Your task to perform on an android device: Clear all items from cart on bestbuy. Image 0: 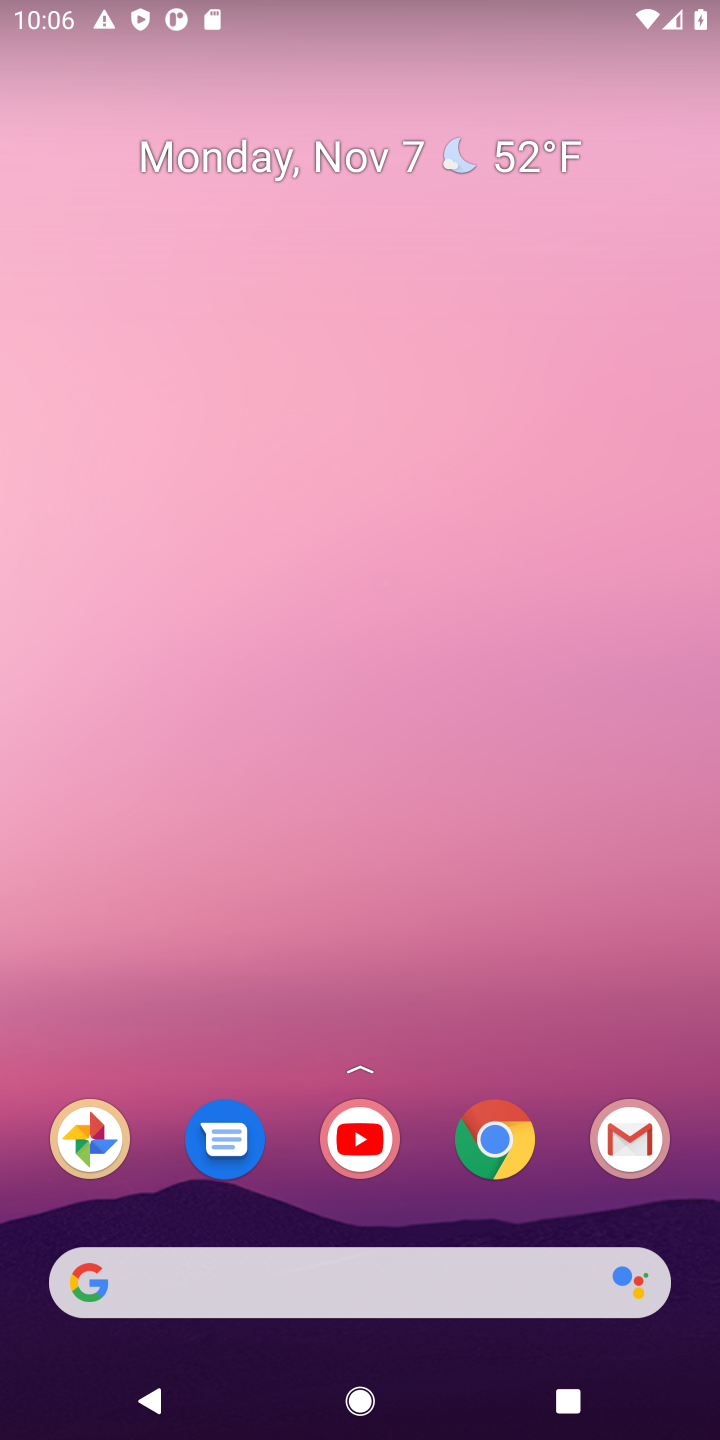
Step 0: press home button
Your task to perform on an android device: Clear all items from cart on bestbuy. Image 1: 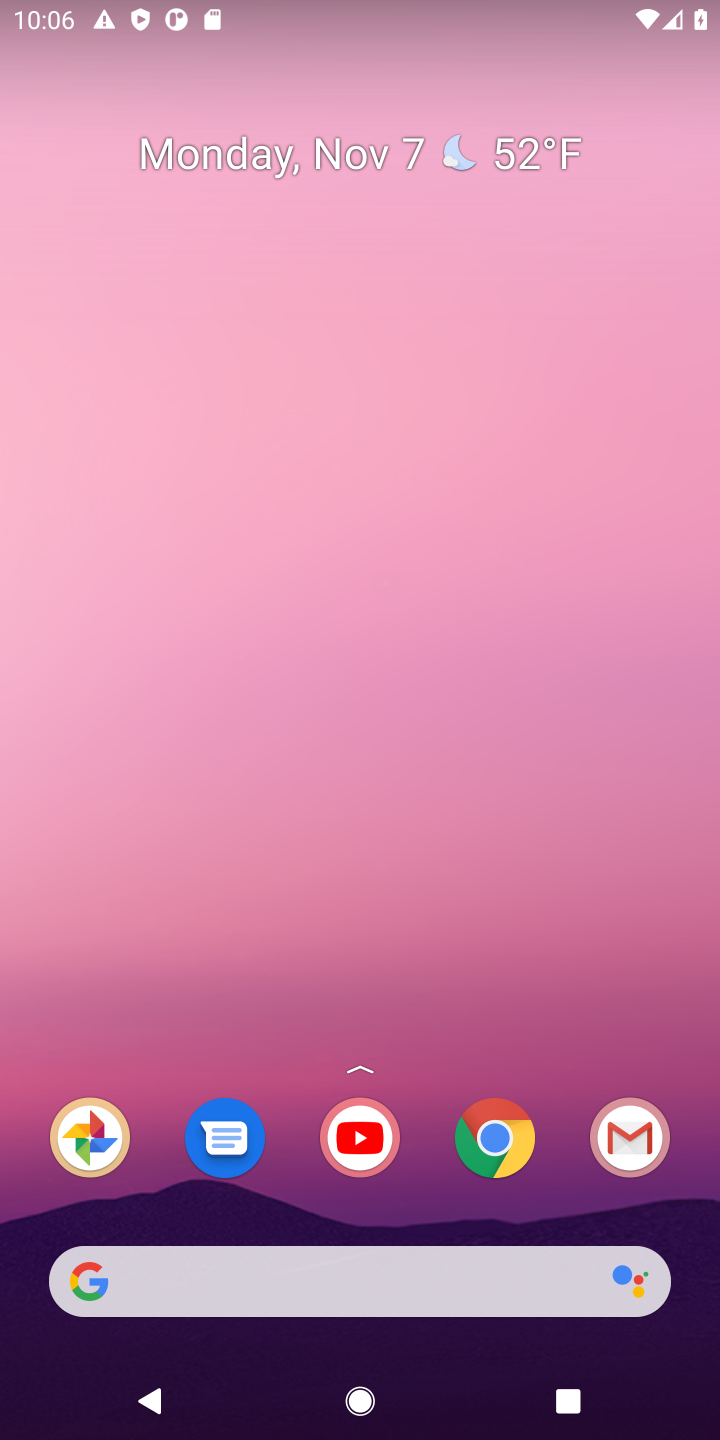
Step 1: drag from (426, 983) to (435, 336)
Your task to perform on an android device: Clear all items from cart on bestbuy. Image 2: 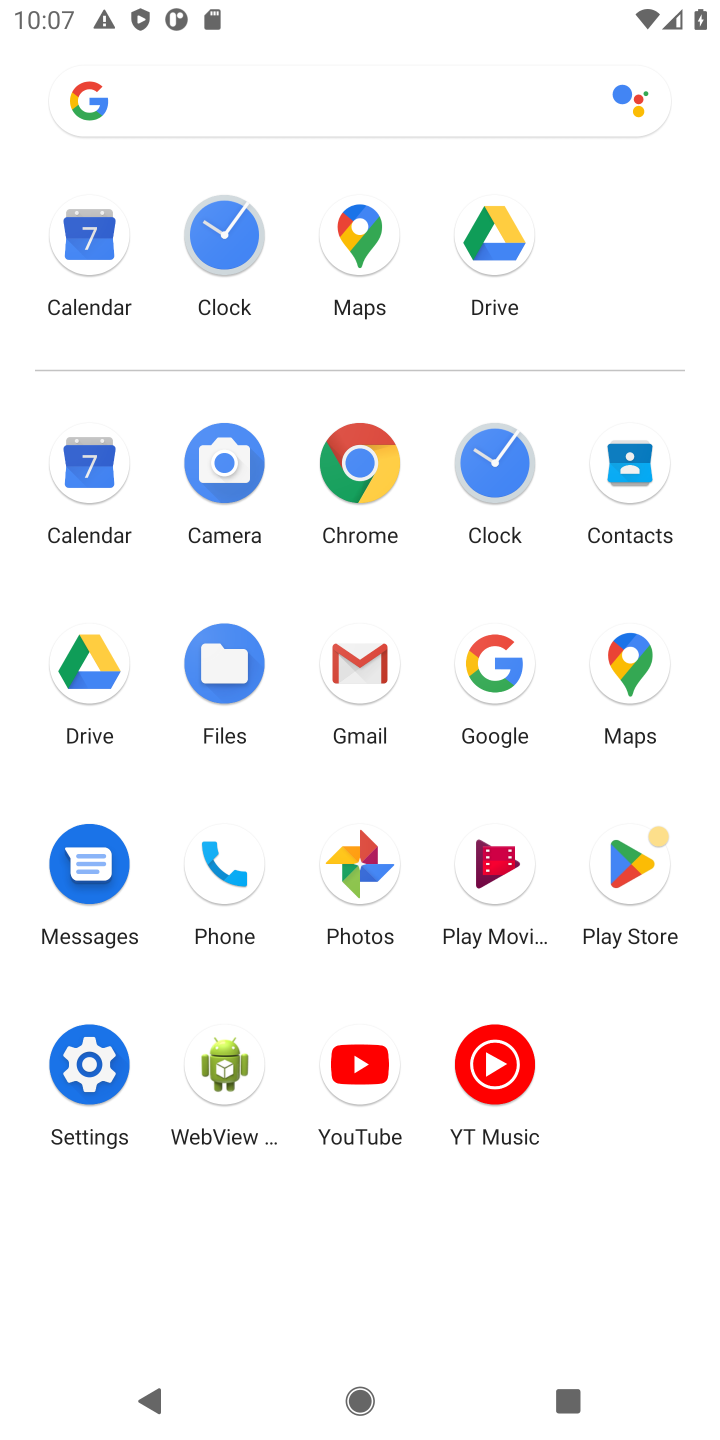
Step 2: click (359, 455)
Your task to perform on an android device: Clear all items from cart on bestbuy. Image 3: 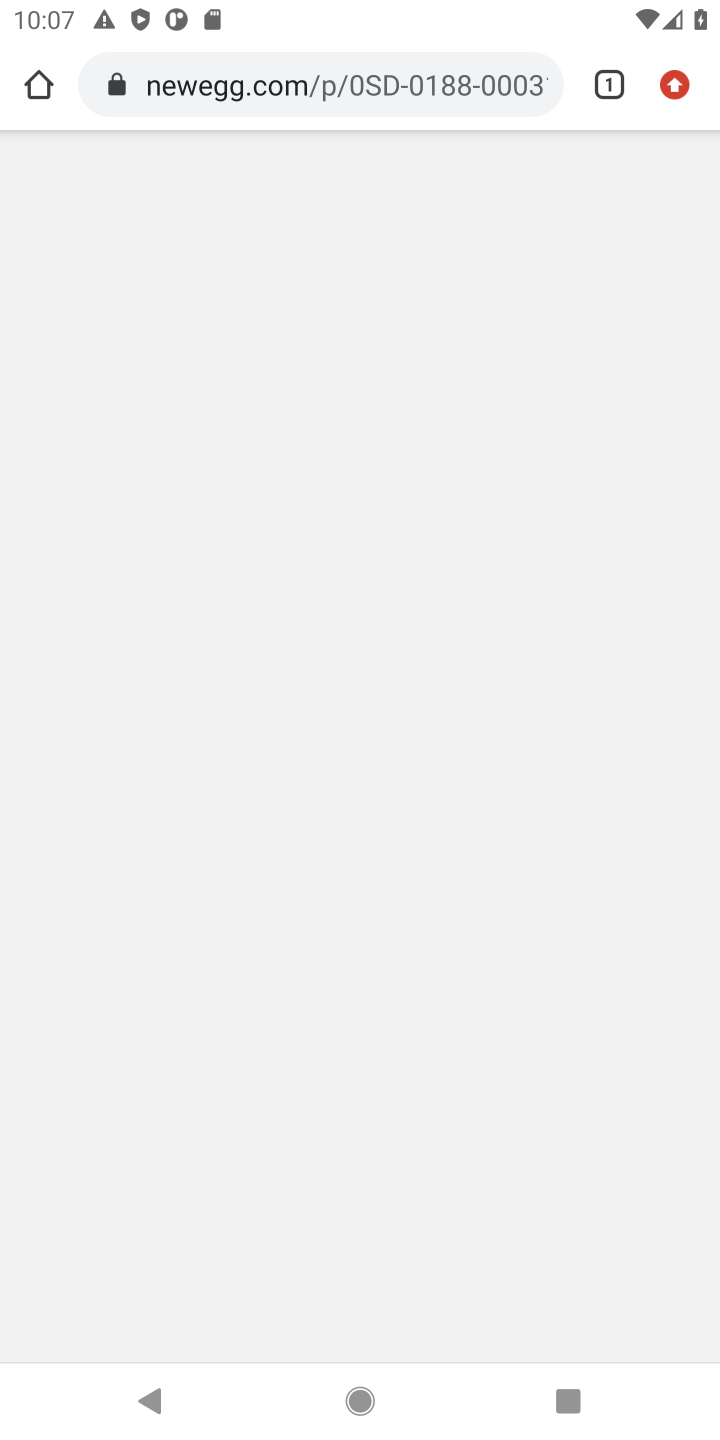
Step 3: click (312, 77)
Your task to perform on an android device: Clear all items from cart on bestbuy. Image 4: 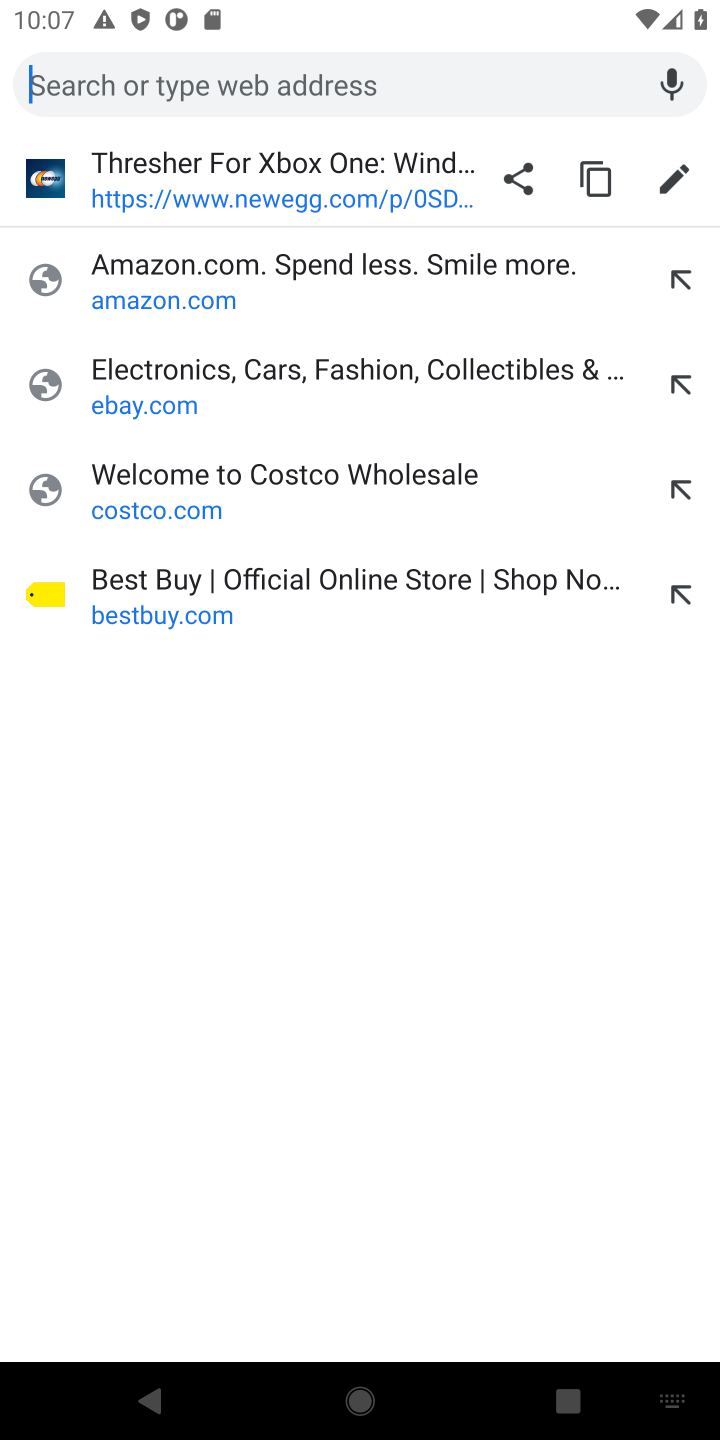
Step 4: type "bestbuy.com"
Your task to perform on an android device: Clear all items from cart on bestbuy. Image 5: 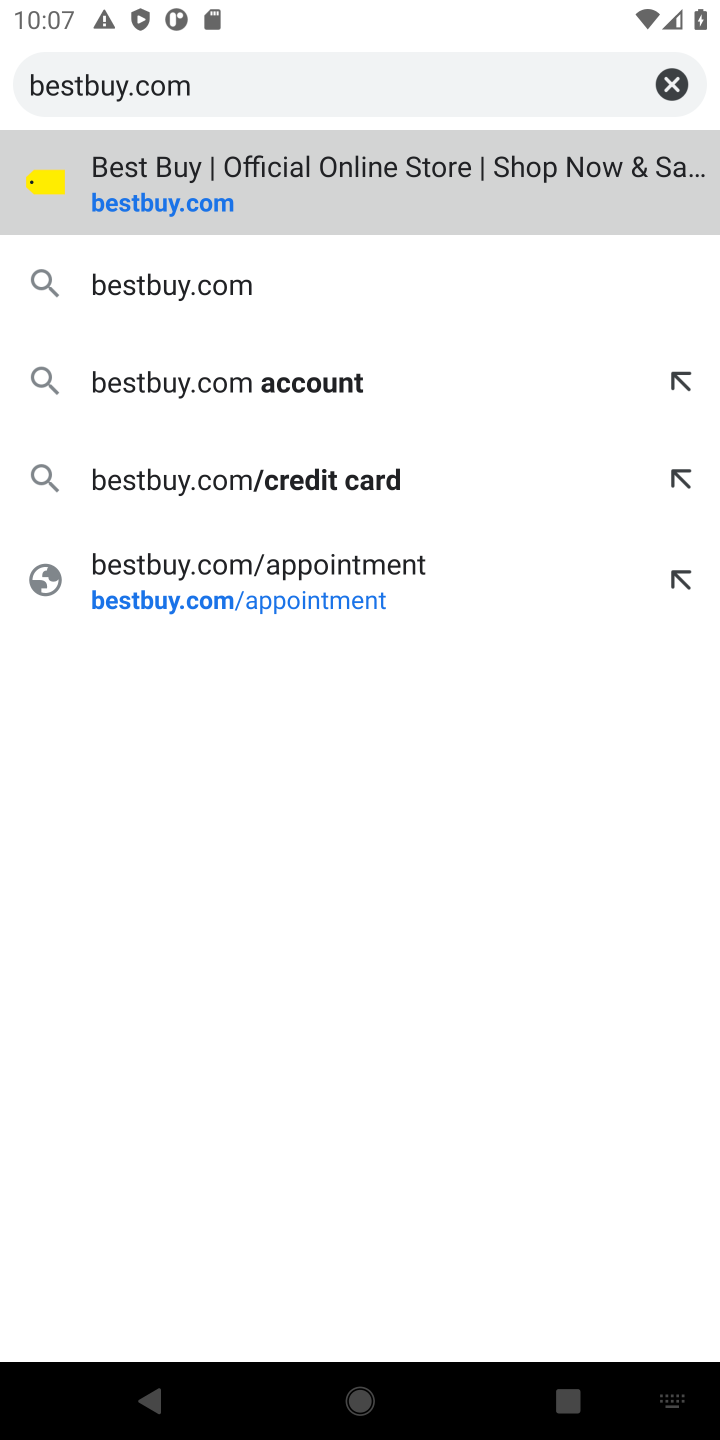
Step 5: press enter
Your task to perform on an android device: Clear all items from cart on bestbuy. Image 6: 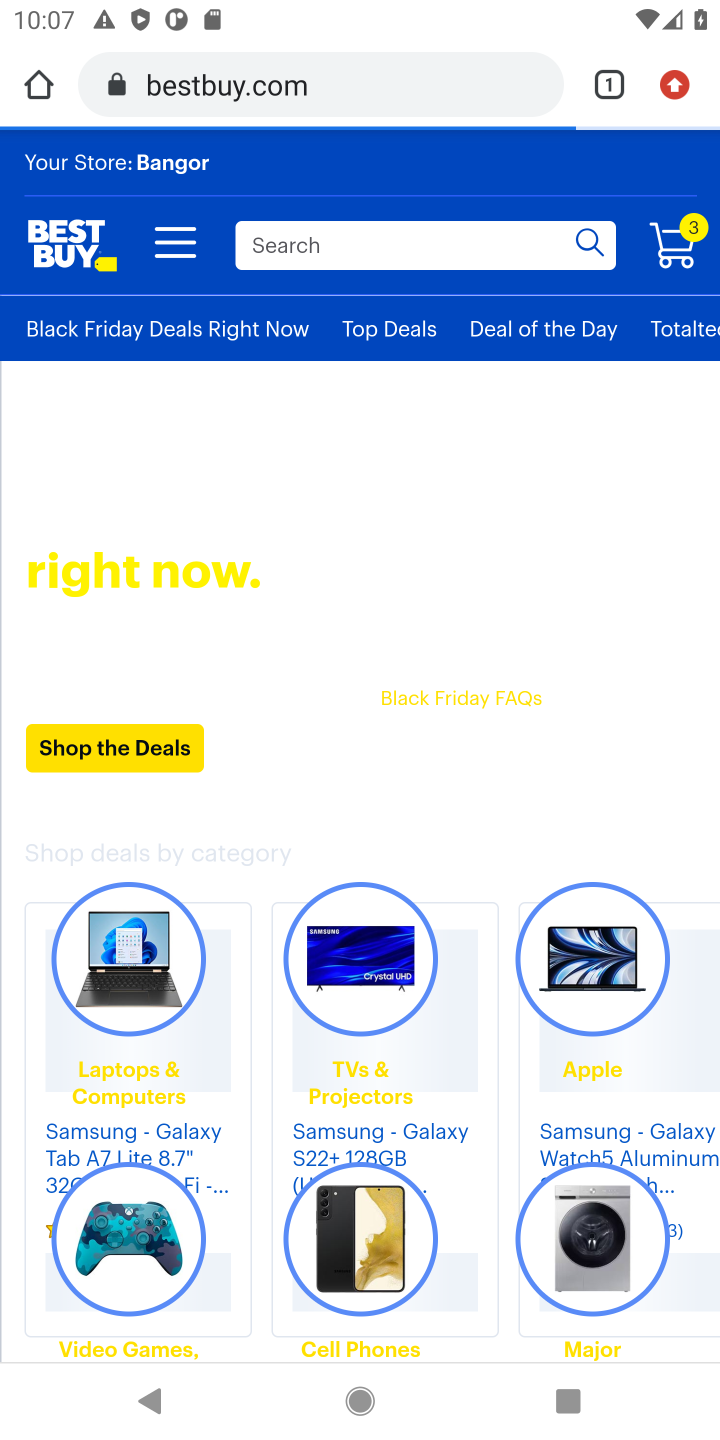
Step 6: click (676, 251)
Your task to perform on an android device: Clear all items from cart on bestbuy. Image 7: 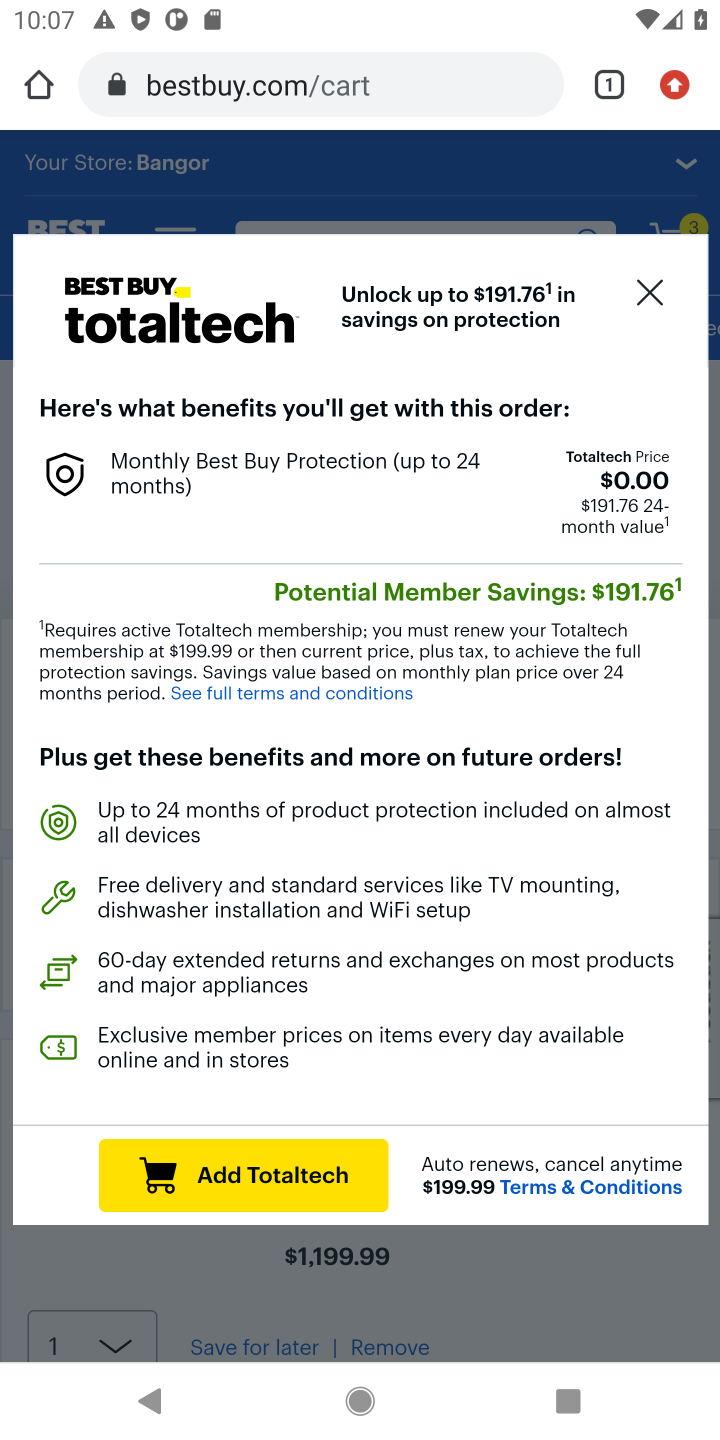
Step 7: click (637, 294)
Your task to perform on an android device: Clear all items from cart on bestbuy. Image 8: 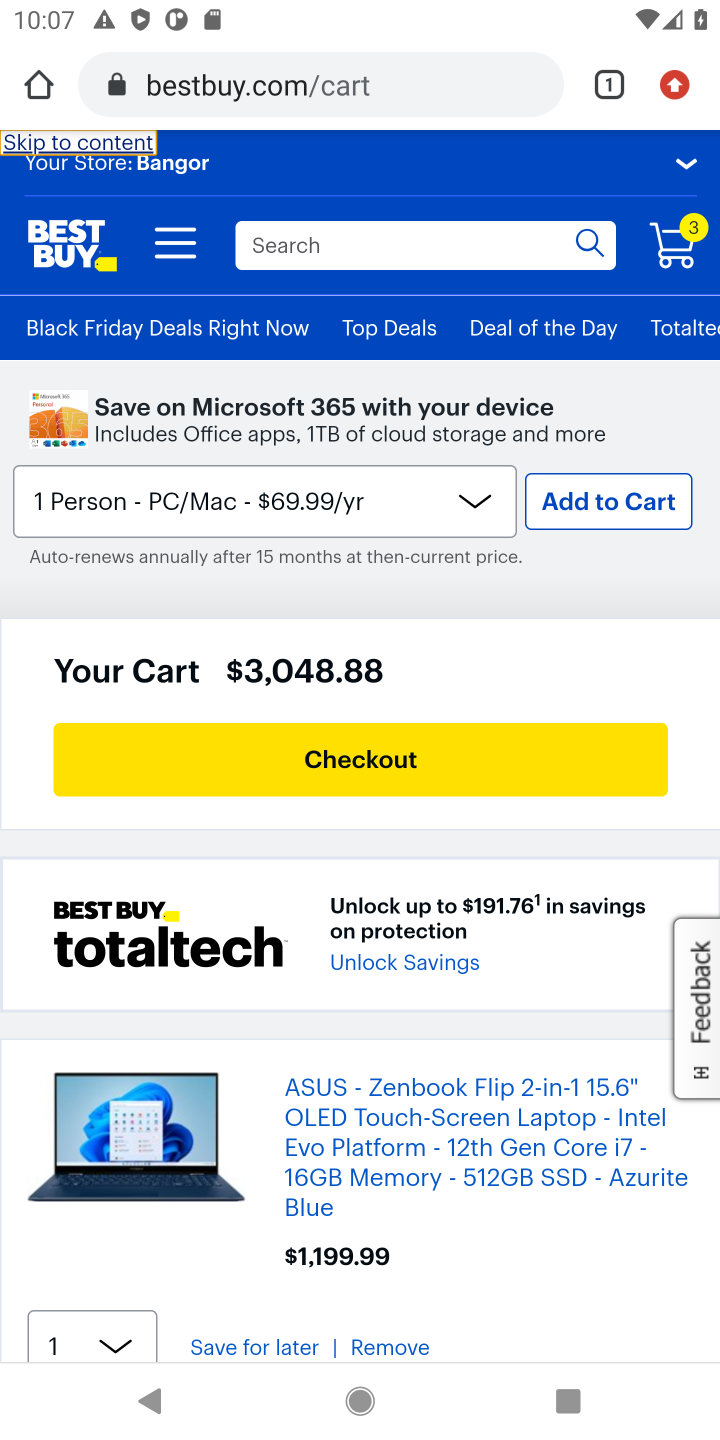
Step 8: drag from (344, 1191) to (439, 408)
Your task to perform on an android device: Clear all items from cart on bestbuy. Image 9: 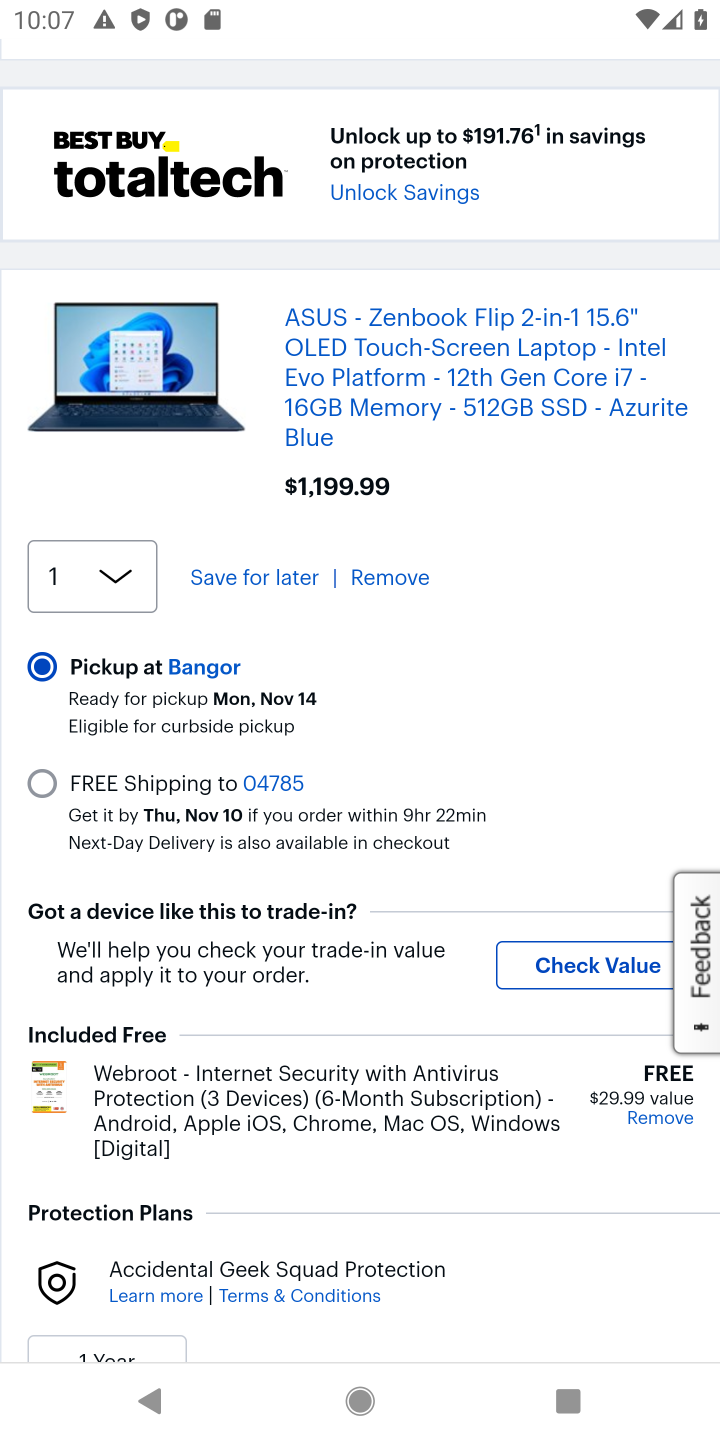
Step 9: click (403, 579)
Your task to perform on an android device: Clear all items from cart on bestbuy. Image 10: 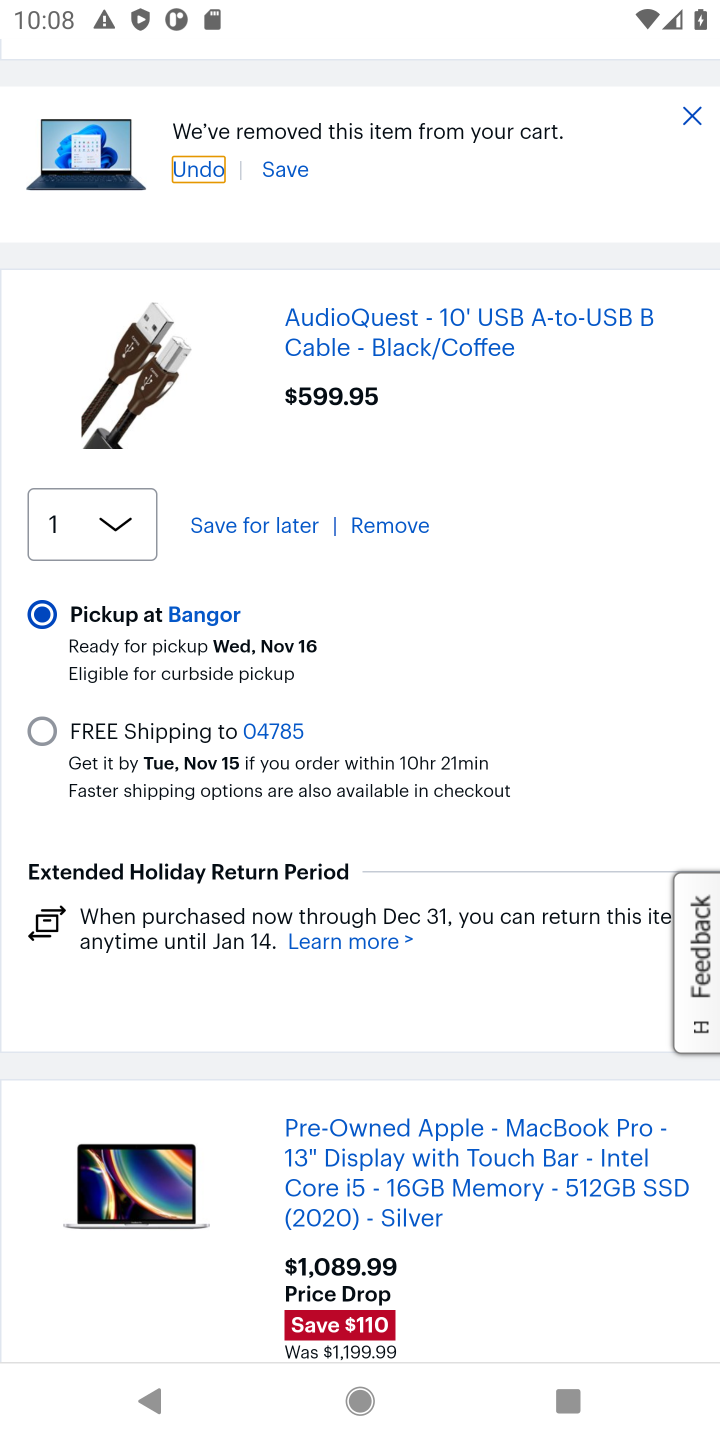
Step 10: click (408, 530)
Your task to perform on an android device: Clear all items from cart on bestbuy. Image 11: 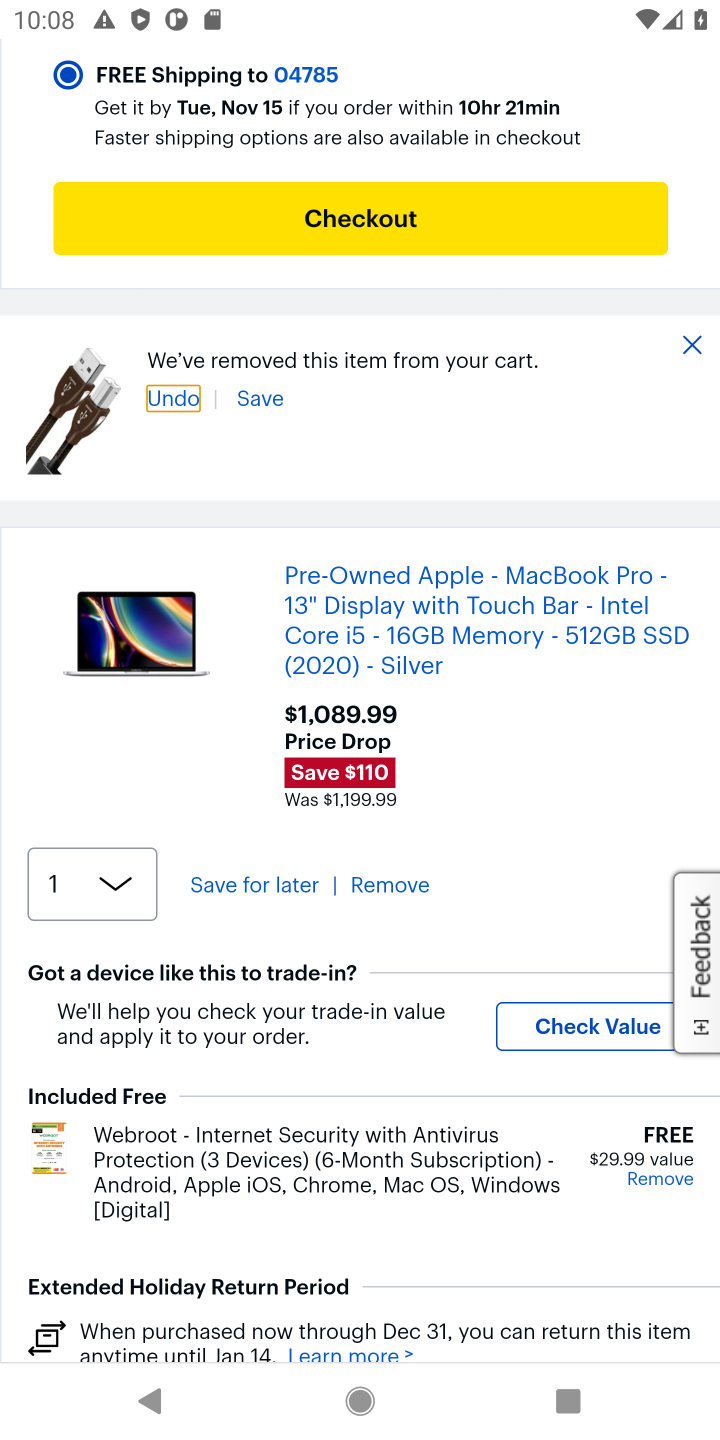
Step 11: click (390, 871)
Your task to perform on an android device: Clear all items from cart on bestbuy. Image 12: 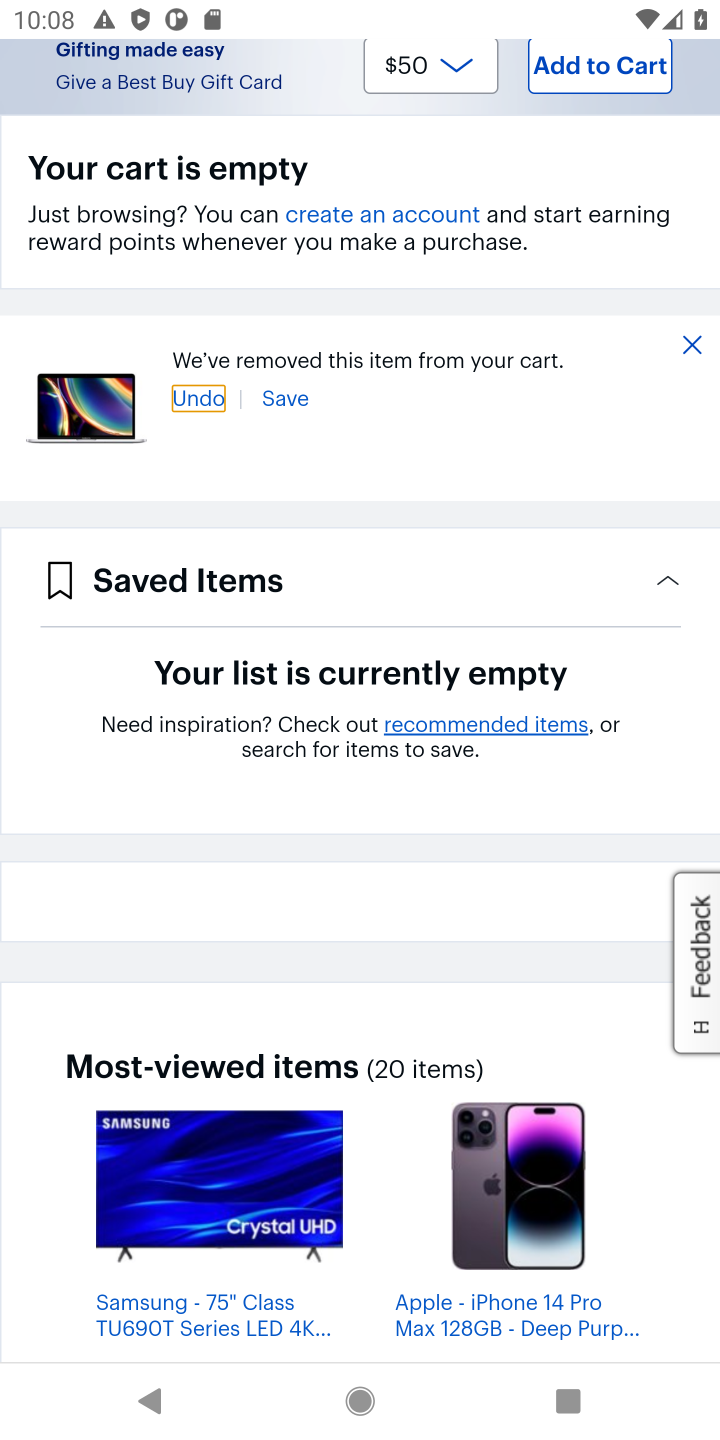
Step 12: click (690, 339)
Your task to perform on an android device: Clear all items from cart on bestbuy. Image 13: 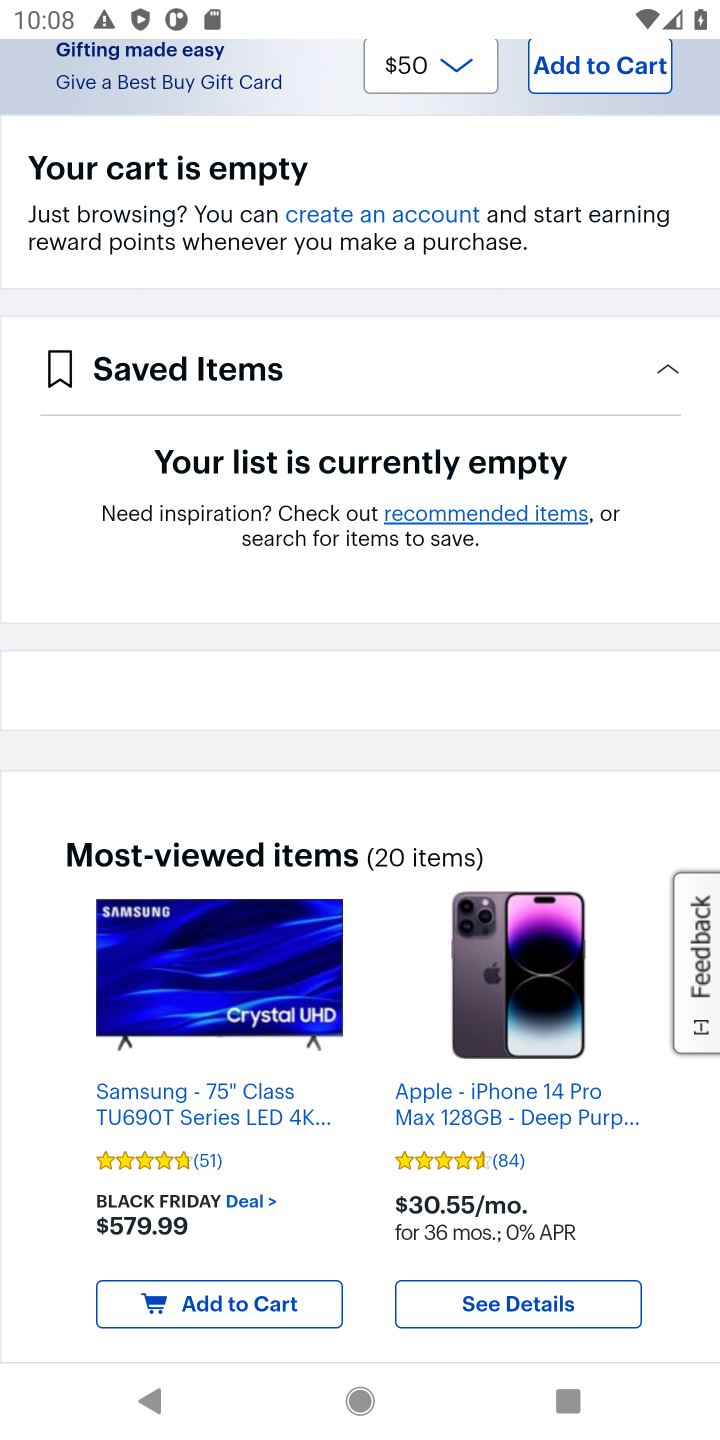
Step 13: task complete